Your task to perform on an android device: View the shopping cart on newegg.com. Add "razer blade" to the cart on newegg.com, then select checkout. Image 0: 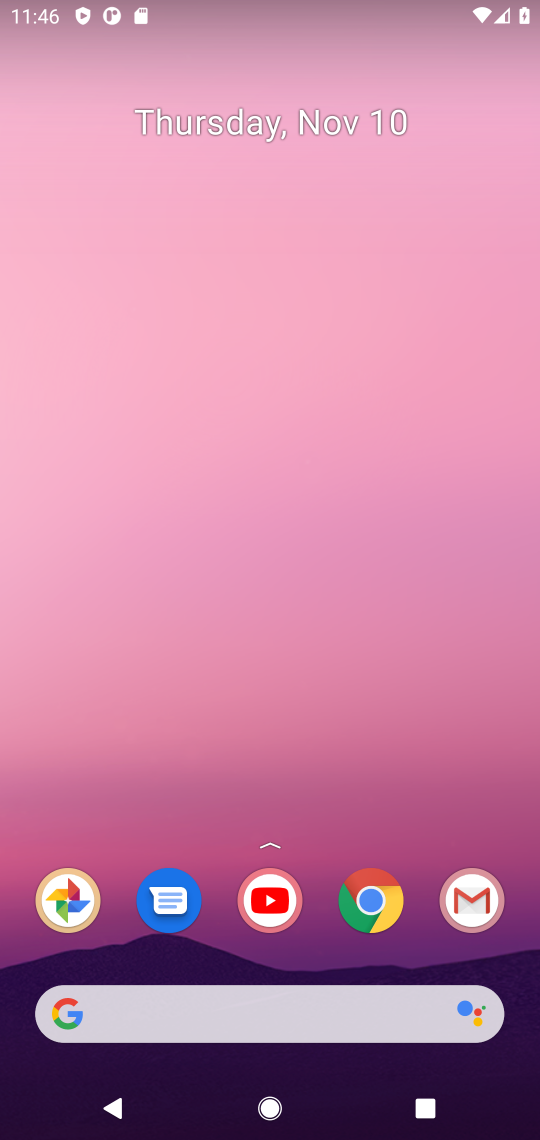
Step 0: click (370, 903)
Your task to perform on an android device: View the shopping cart on newegg.com. Add "razer blade" to the cart on newegg.com, then select checkout. Image 1: 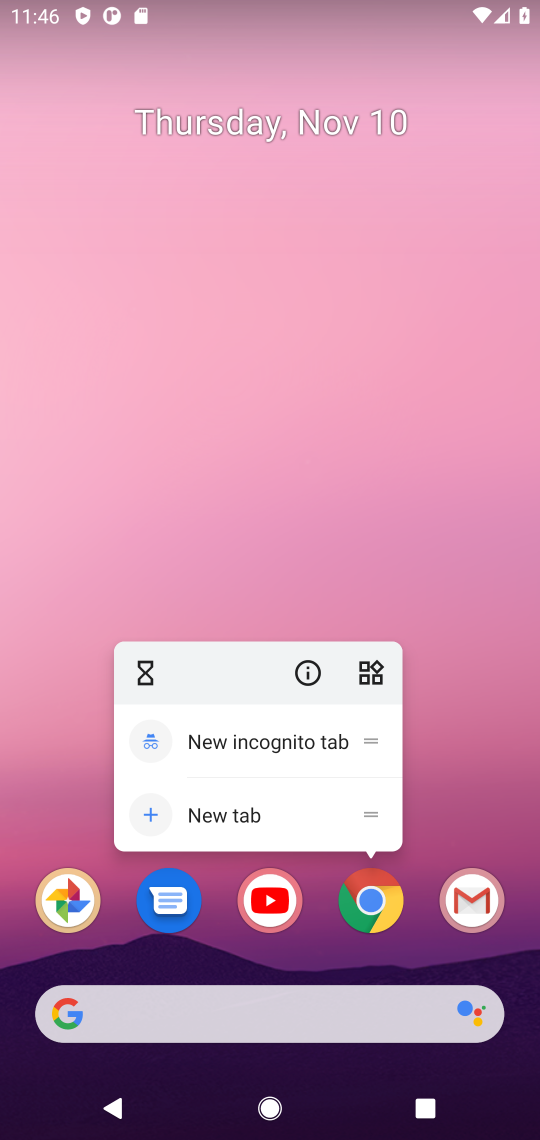
Step 1: click (370, 903)
Your task to perform on an android device: View the shopping cart on newegg.com. Add "razer blade" to the cart on newegg.com, then select checkout. Image 2: 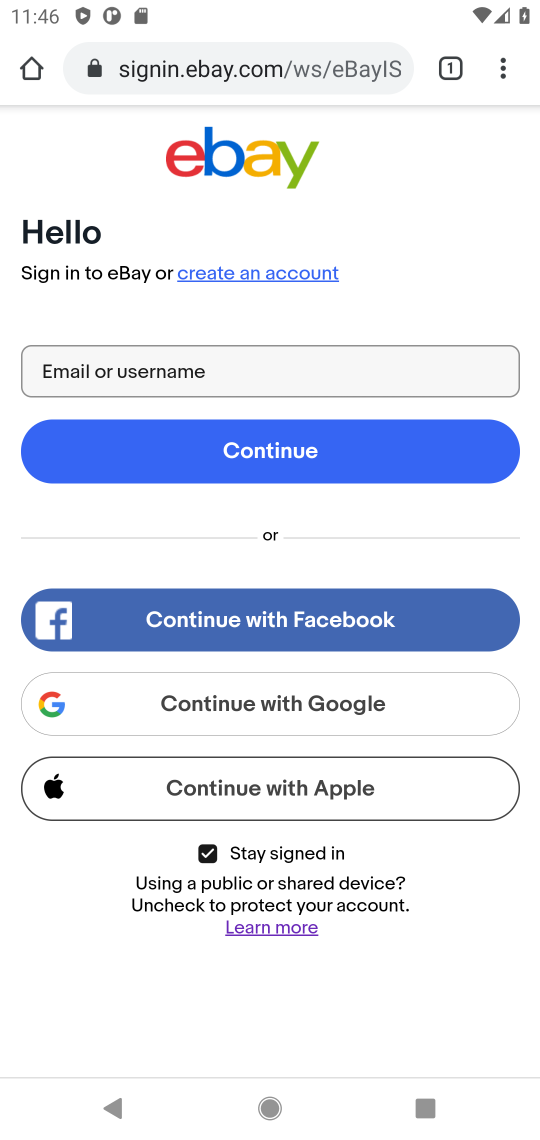
Step 2: click (292, 70)
Your task to perform on an android device: View the shopping cart on newegg.com. Add "razer blade" to the cart on newegg.com, then select checkout. Image 3: 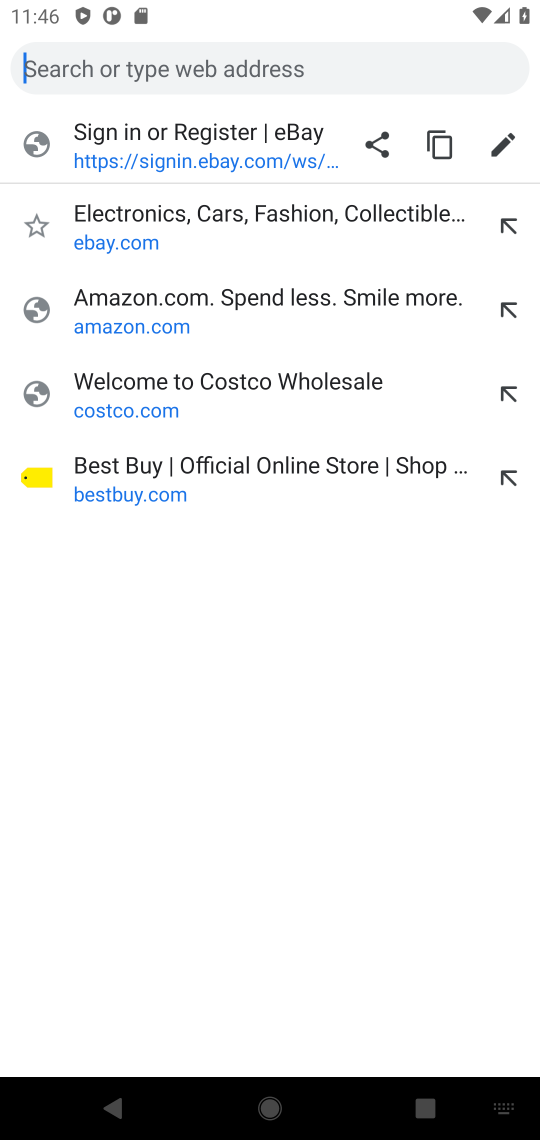
Step 3: type "newegg.com"
Your task to perform on an android device: View the shopping cart on newegg.com. Add "razer blade" to the cart on newegg.com, then select checkout. Image 4: 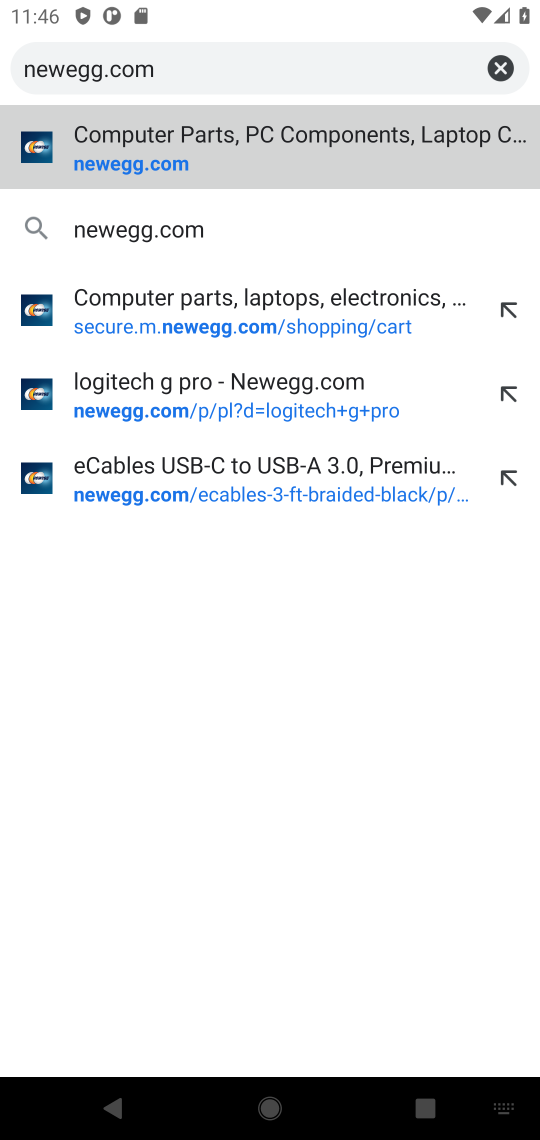
Step 4: press enter
Your task to perform on an android device: View the shopping cart on newegg.com. Add "razer blade" to the cart on newegg.com, then select checkout. Image 5: 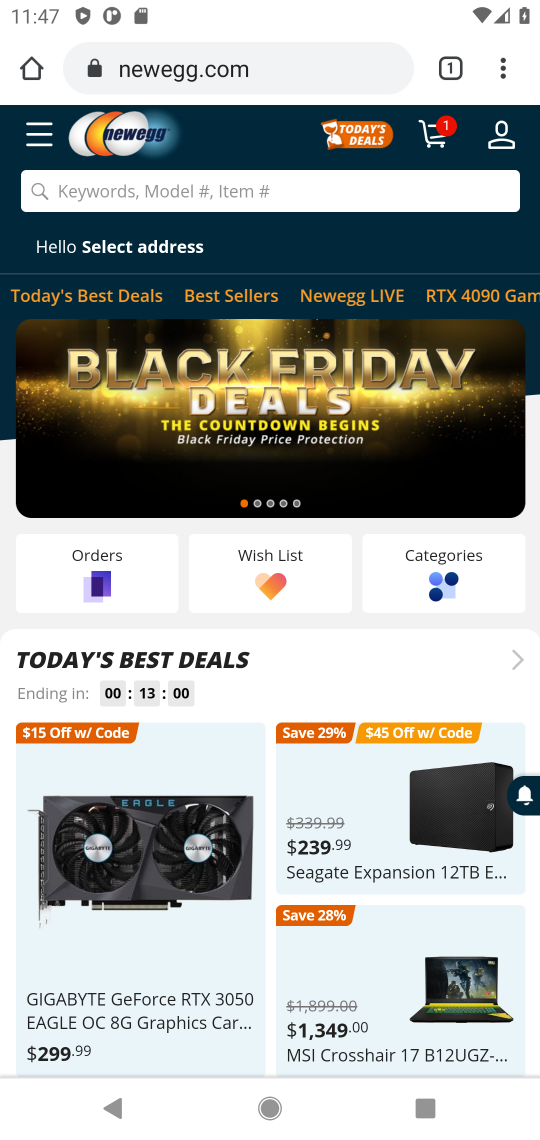
Step 5: click (147, 186)
Your task to perform on an android device: View the shopping cart on newegg.com. Add "razer blade" to the cart on newegg.com, then select checkout. Image 6: 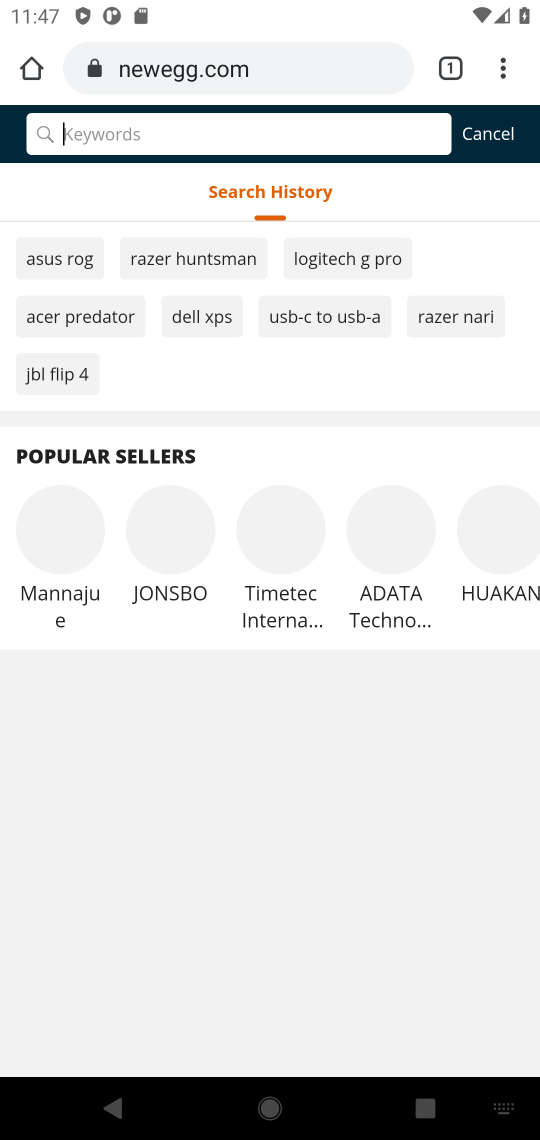
Step 6: click (247, 183)
Your task to perform on an android device: View the shopping cart on newegg.com. Add "razer blade" to the cart on newegg.com, then select checkout. Image 7: 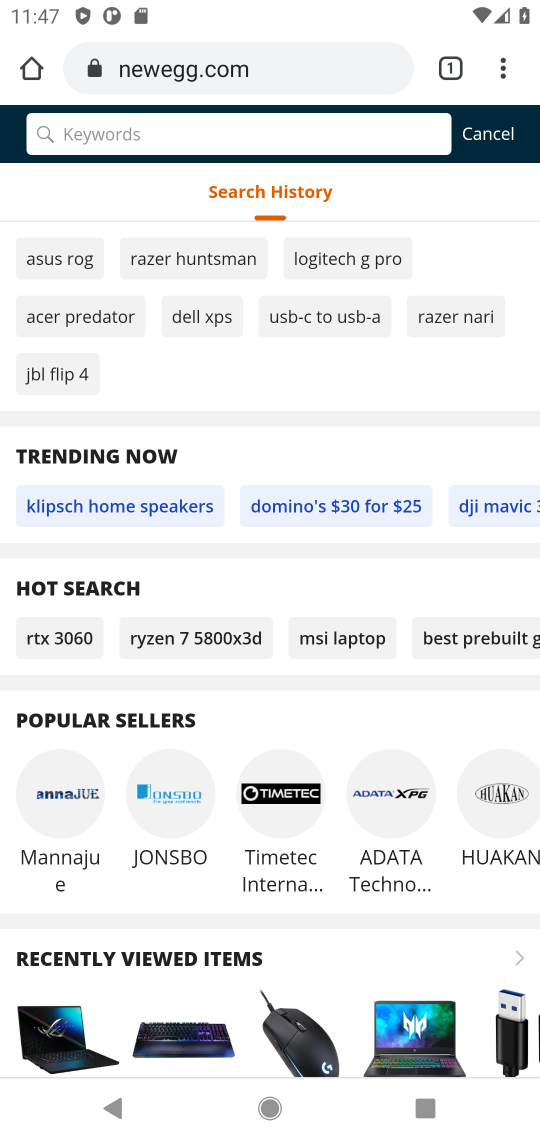
Step 7: click (168, 130)
Your task to perform on an android device: View the shopping cart on newegg.com. Add "razer blade" to the cart on newegg.com, then select checkout. Image 8: 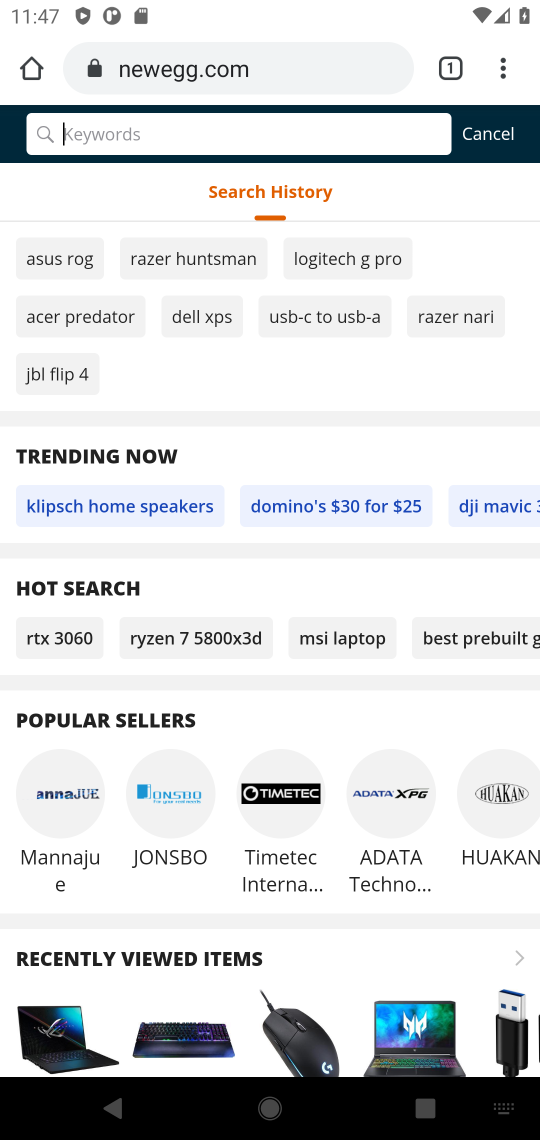
Step 8: press enter
Your task to perform on an android device: View the shopping cart on newegg.com. Add "razer blade" to the cart on newegg.com, then select checkout. Image 9: 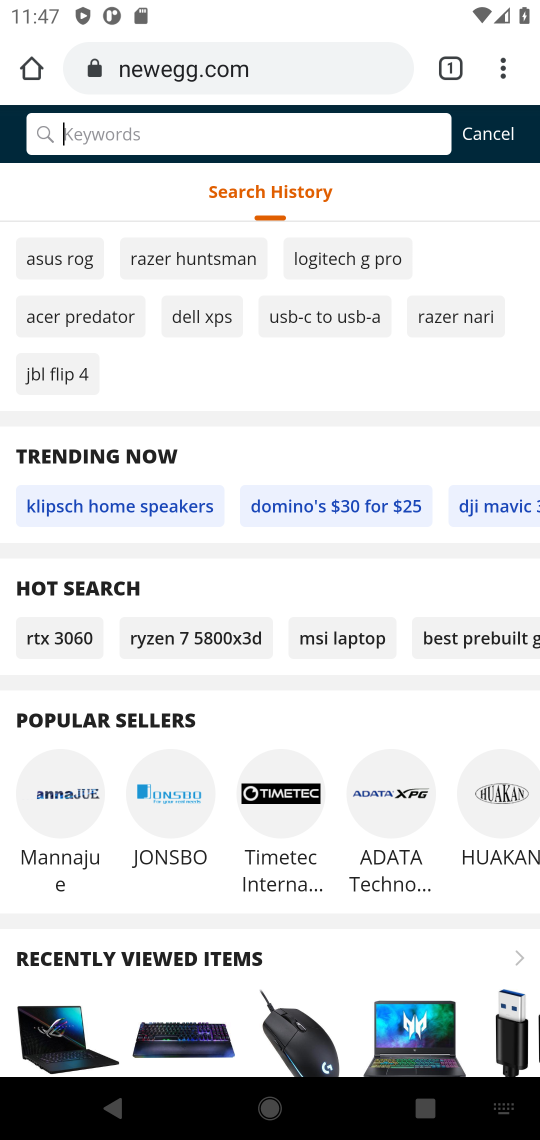
Step 9: type "razer blade"
Your task to perform on an android device: View the shopping cart on newegg.com. Add "razer blade" to the cart on newegg.com, then select checkout. Image 10: 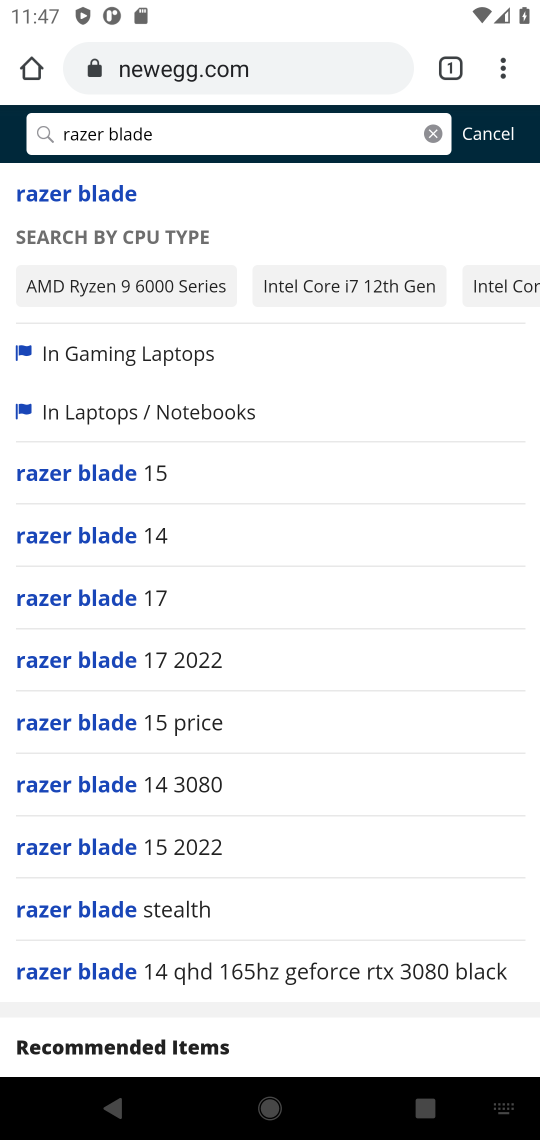
Step 10: press enter
Your task to perform on an android device: View the shopping cart on newegg.com. Add "razer blade" to the cart on newegg.com, then select checkout. Image 11: 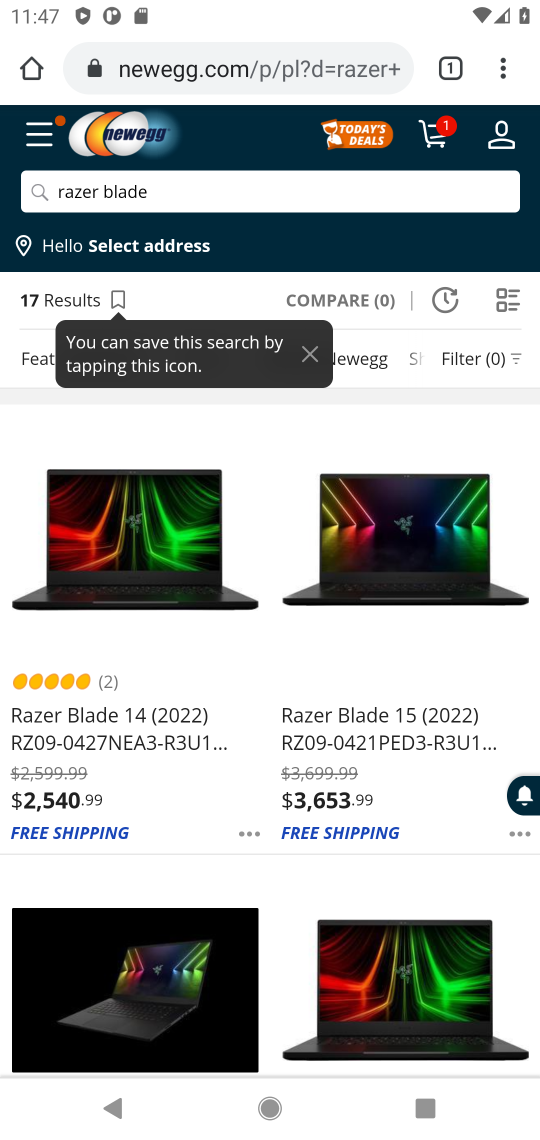
Step 11: click (133, 755)
Your task to perform on an android device: View the shopping cart on newegg.com. Add "razer blade" to the cart on newegg.com, then select checkout. Image 12: 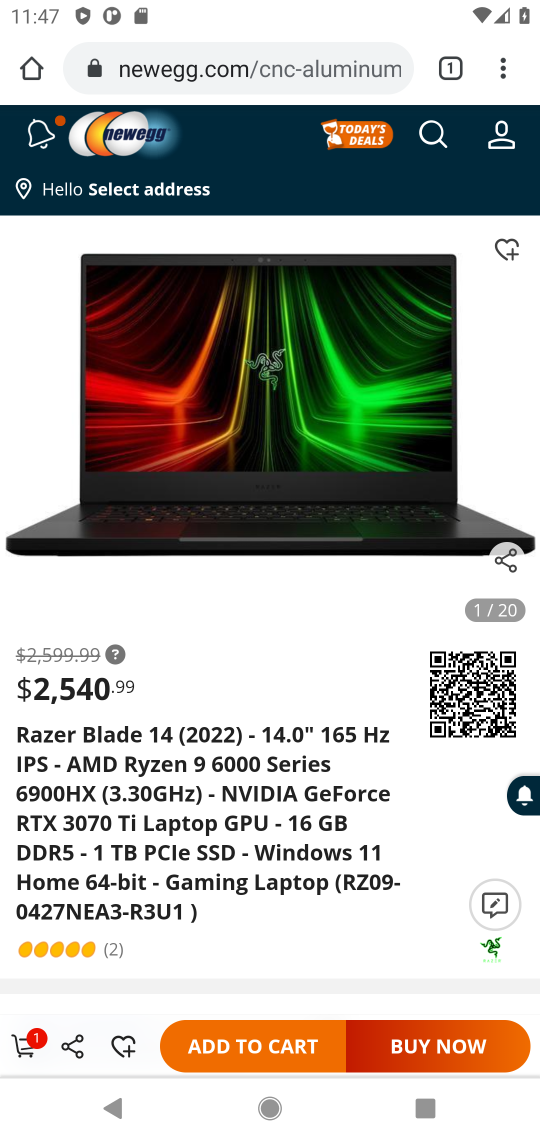
Step 12: click (274, 1044)
Your task to perform on an android device: View the shopping cart on newegg.com. Add "razer blade" to the cart on newegg.com, then select checkout. Image 13: 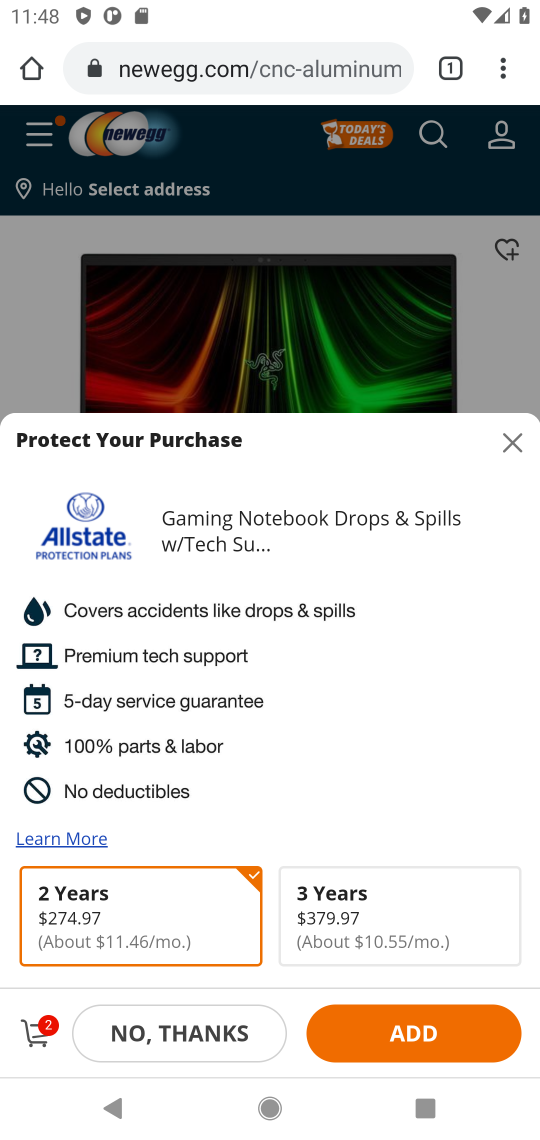
Step 13: click (34, 1027)
Your task to perform on an android device: View the shopping cart on newegg.com. Add "razer blade" to the cart on newegg.com, then select checkout. Image 14: 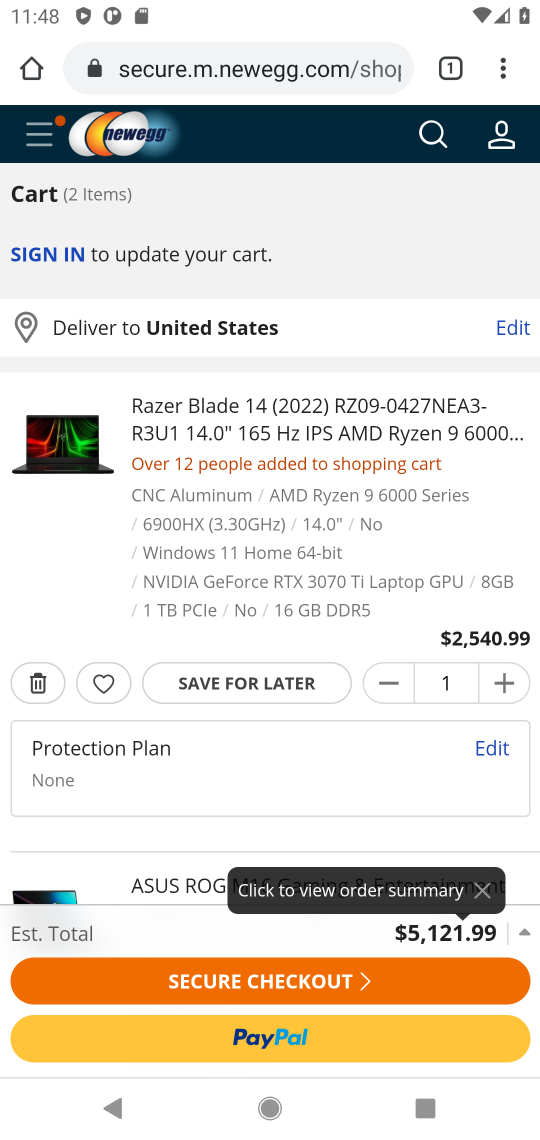
Step 14: drag from (358, 761) to (390, 551)
Your task to perform on an android device: View the shopping cart on newegg.com. Add "razer blade" to the cart on newegg.com, then select checkout. Image 15: 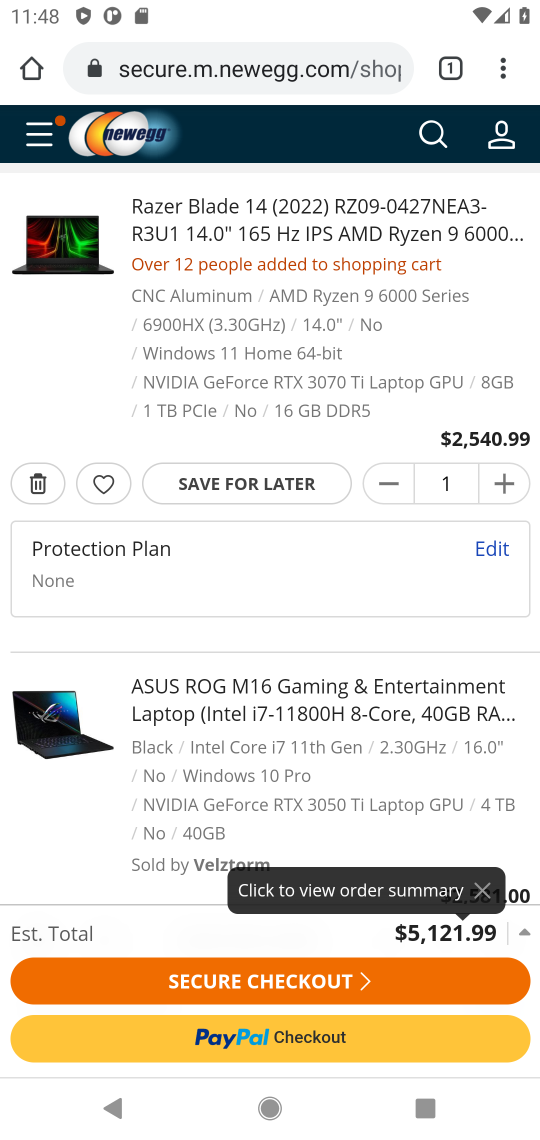
Step 15: drag from (287, 807) to (419, 361)
Your task to perform on an android device: View the shopping cart on newegg.com. Add "razer blade" to the cart on newegg.com, then select checkout. Image 16: 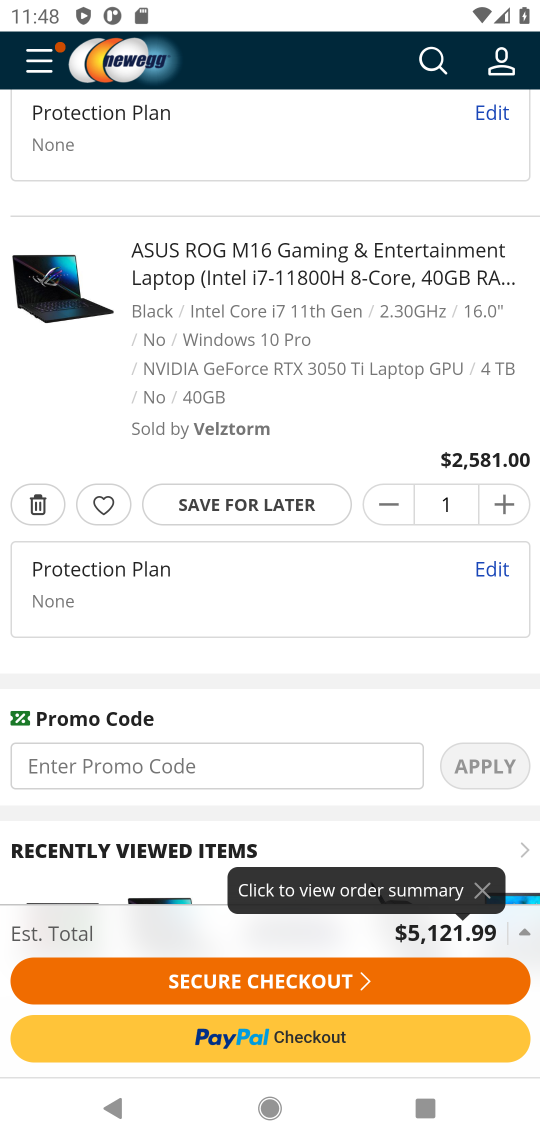
Step 16: click (31, 498)
Your task to perform on an android device: View the shopping cart on newegg.com. Add "razer blade" to the cart on newegg.com, then select checkout. Image 17: 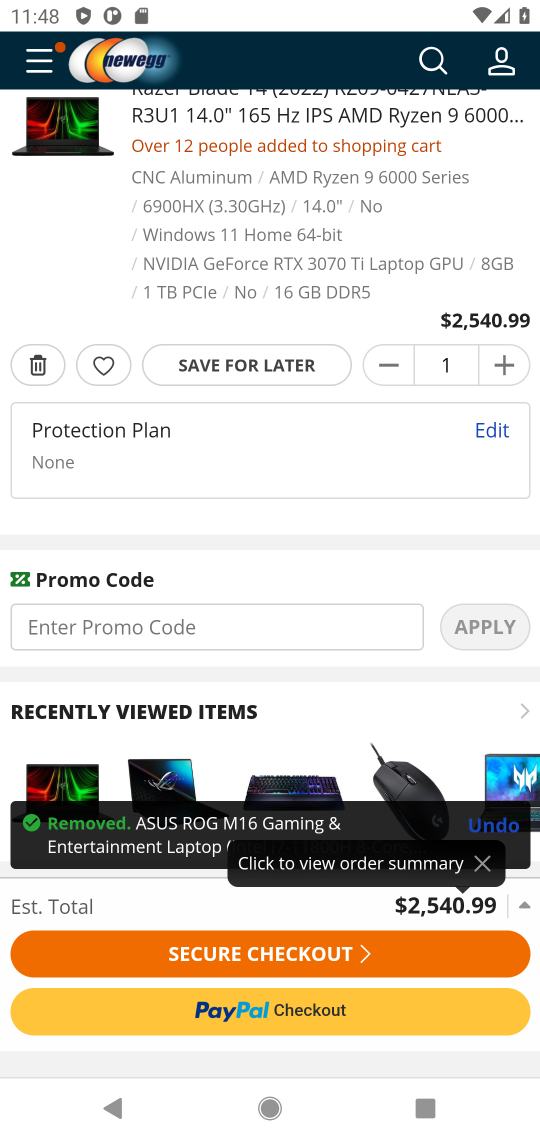
Step 17: drag from (366, 382) to (301, 776)
Your task to perform on an android device: View the shopping cart on newegg.com. Add "razer blade" to the cart on newegg.com, then select checkout. Image 18: 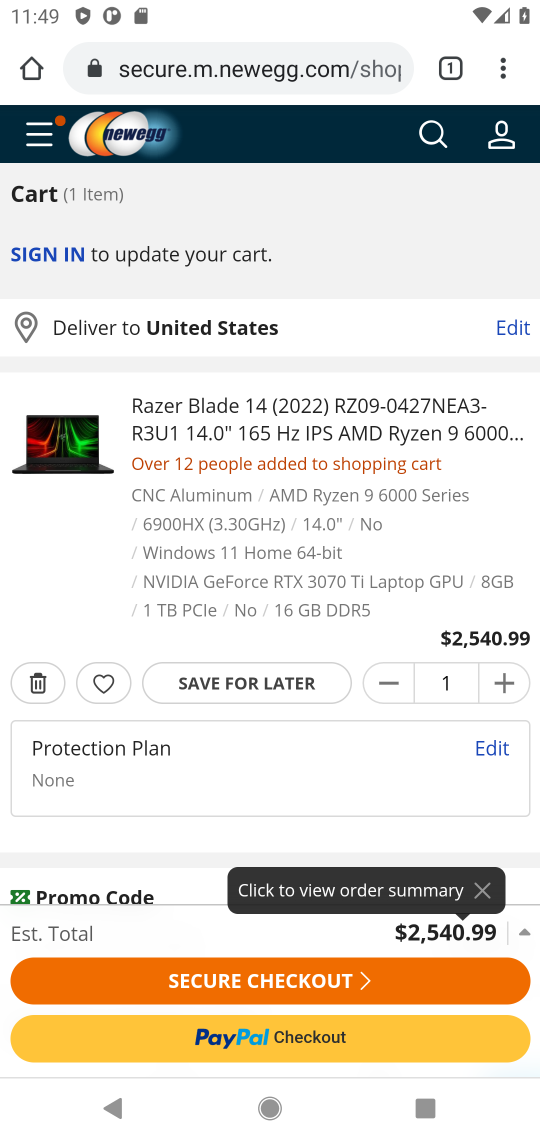
Step 18: click (260, 990)
Your task to perform on an android device: View the shopping cart on newegg.com. Add "razer blade" to the cart on newegg.com, then select checkout. Image 19: 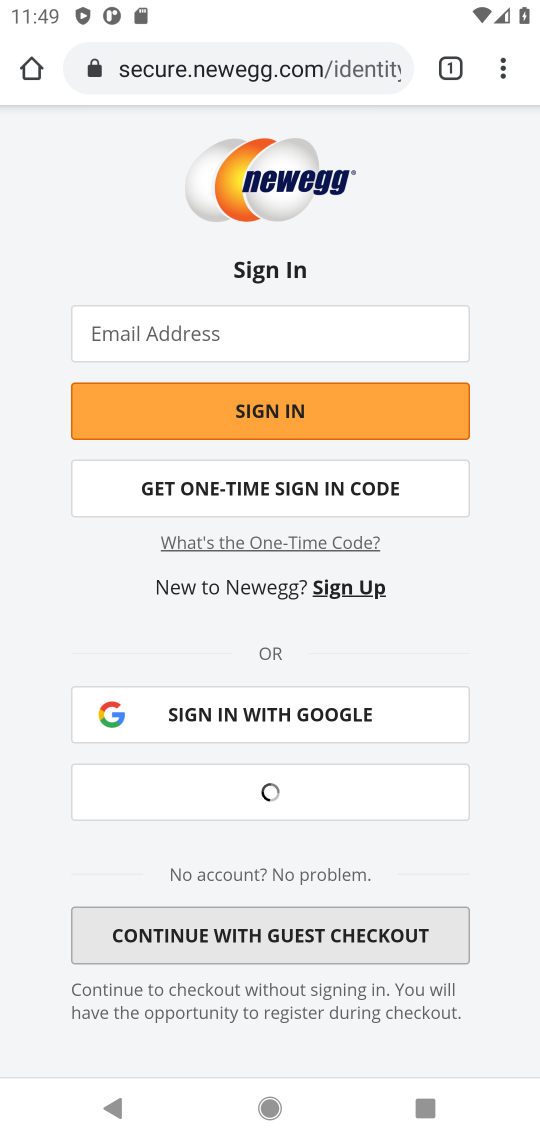
Step 19: task complete